Your task to perform on an android device: Go to calendar. Show me events next week Image 0: 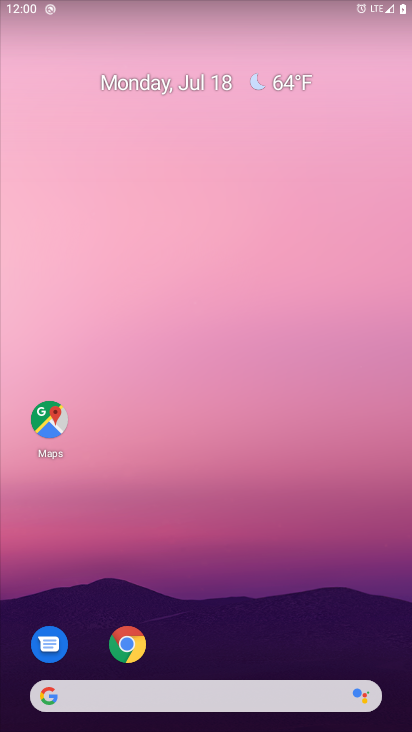
Step 0: press home button
Your task to perform on an android device: Go to calendar. Show me events next week Image 1: 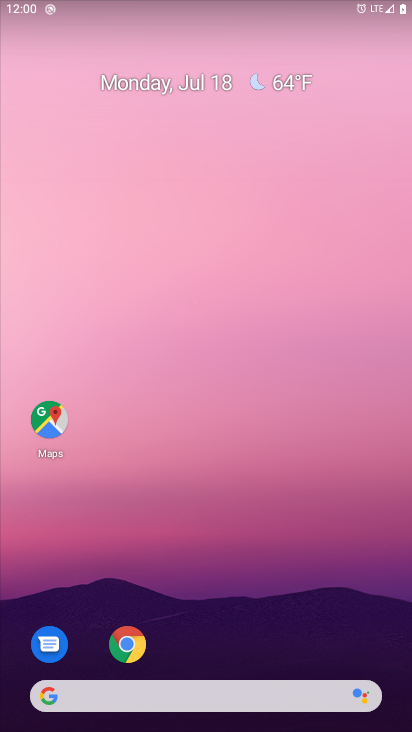
Step 1: drag from (297, 617) to (269, 54)
Your task to perform on an android device: Go to calendar. Show me events next week Image 2: 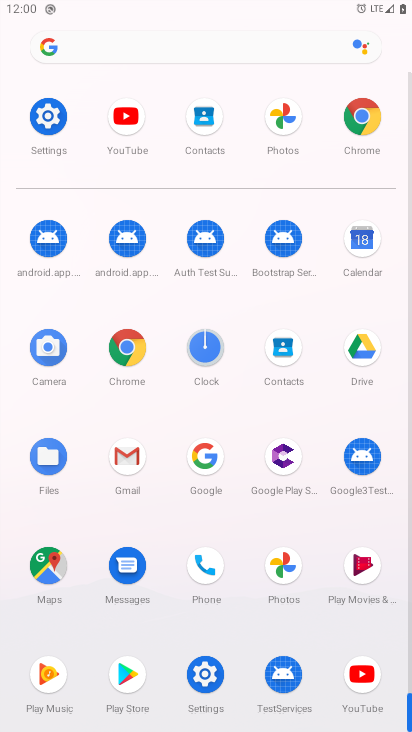
Step 2: click (348, 248)
Your task to perform on an android device: Go to calendar. Show me events next week Image 3: 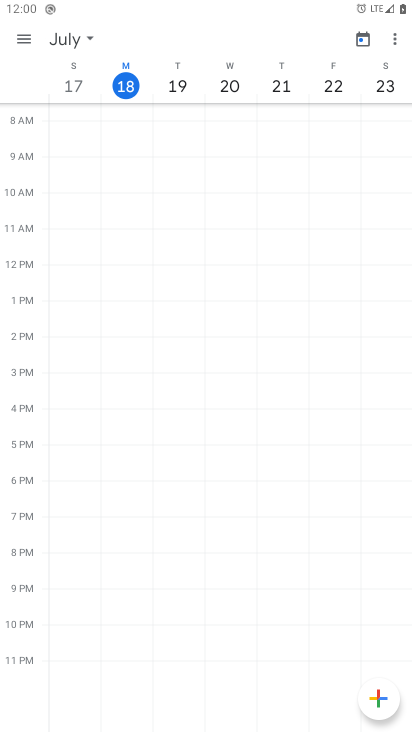
Step 3: task complete